Your task to perform on an android device: toggle airplane mode Image 0: 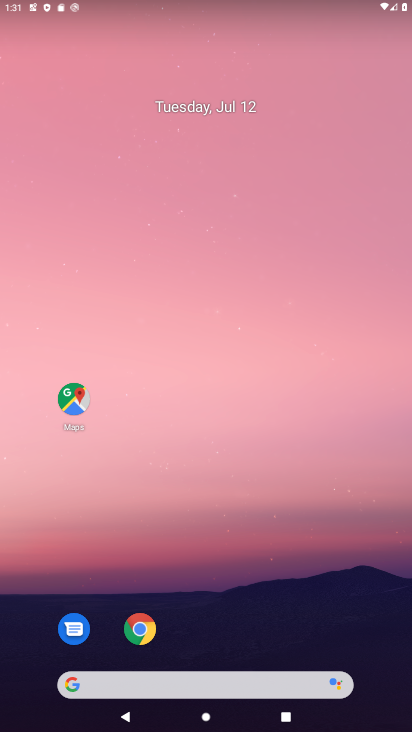
Step 0: click (205, 38)
Your task to perform on an android device: toggle airplane mode Image 1: 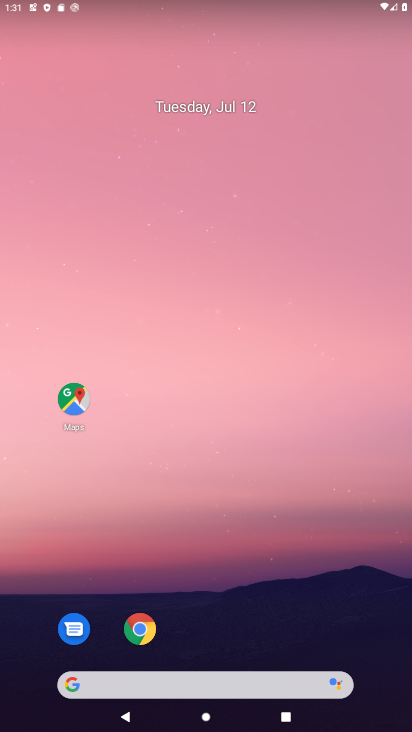
Step 1: drag from (242, 531) to (173, 131)
Your task to perform on an android device: toggle airplane mode Image 2: 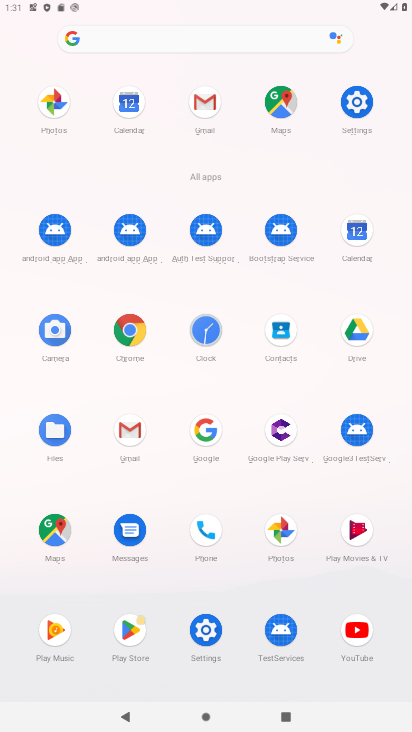
Step 2: click (356, 102)
Your task to perform on an android device: toggle airplane mode Image 3: 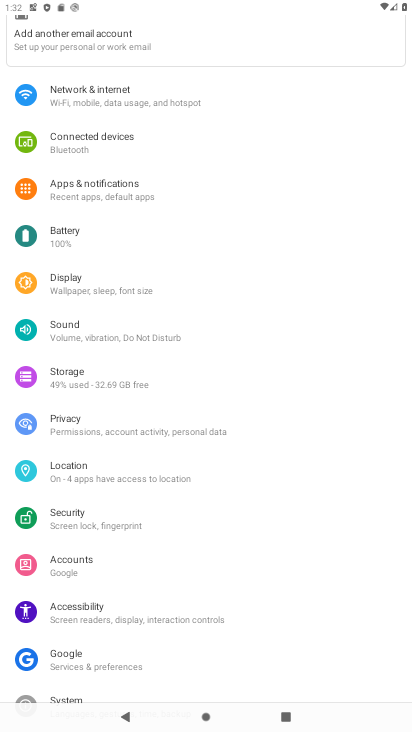
Step 3: click (150, 113)
Your task to perform on an android device: toggle airplane mode Image 4: 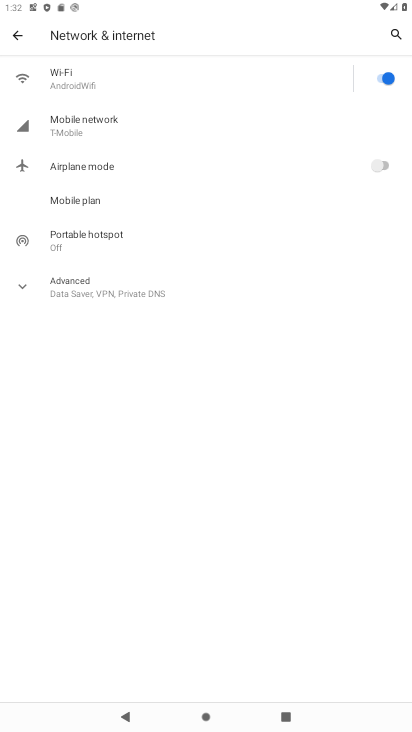
Step 4: click (388, 168)
Your task to perform on an android device: toggle airplane mode Image 5: 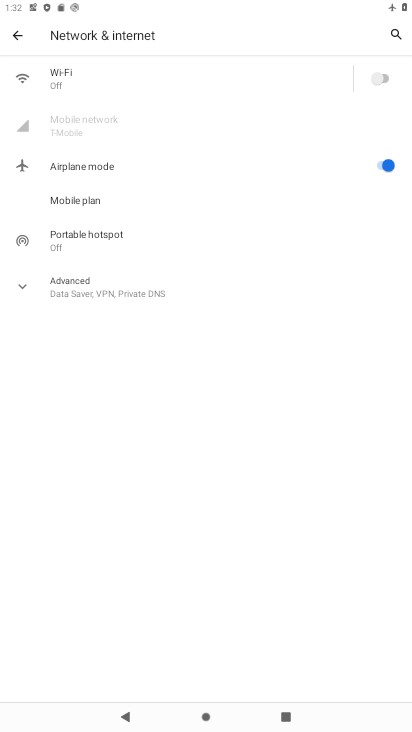
Step 5: task complete